Your task to perform on an android device: Open the calendar app, open the side menu, and click the "Day" option Image 0: 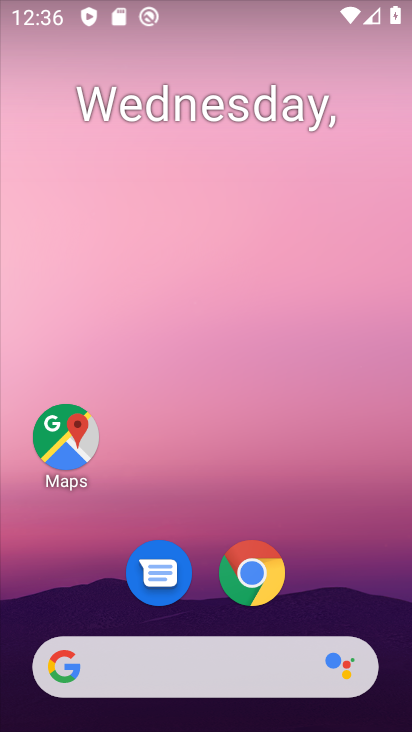
Step 0: drag from (258, 591) to (303, 17)
Your task to perform on an android device: Open the calendar app, open the side menu, and click the "Day" option Image 1: 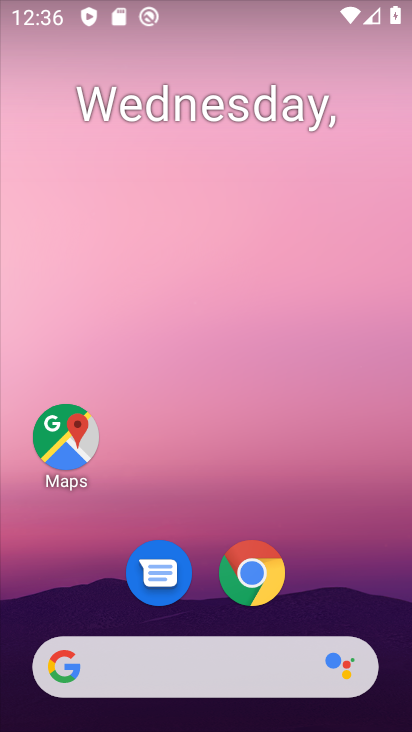
Step 1: drag from (325, 594) to (267, 8)
Your task to perform on an android device: Open the calendar app, open the side menu, and click the "Day" option Image 2: 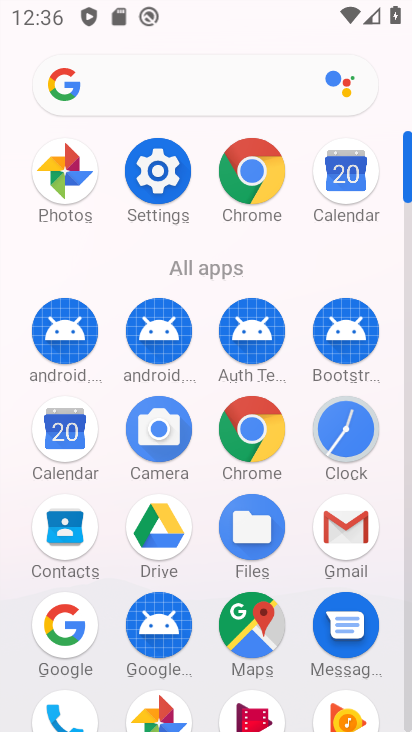
Step 2: click (70, 439)
Your task to perform on an android device: Open the calendar app, open the side menu, and click the "Day" option Image 3: 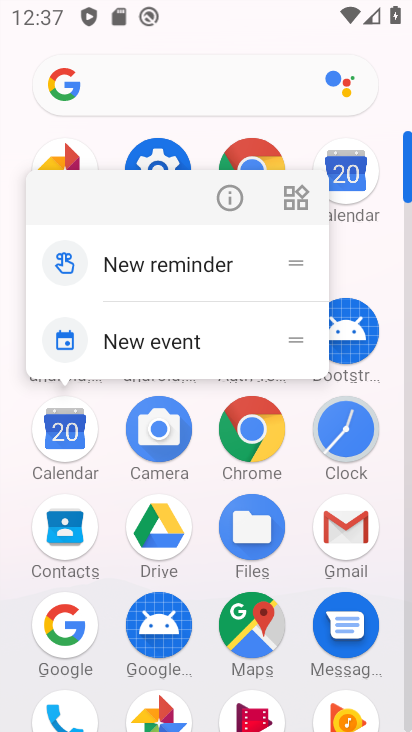
Step 3: click (44, 434)
Your task to perform on an android device: Open the calendar app, open the side menu, and click the "Day" option Image 4: 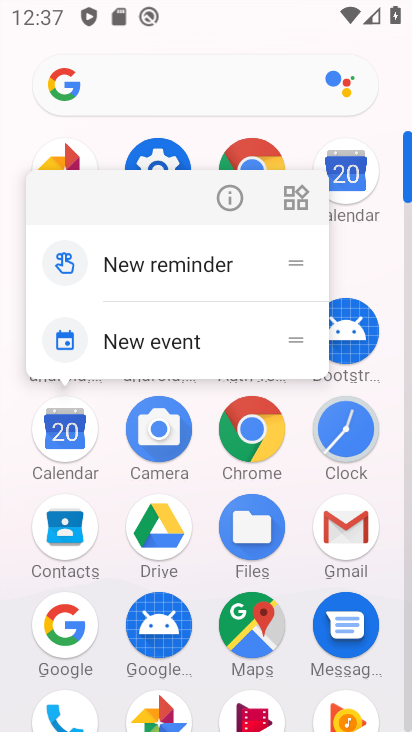
Step 4: click (66, 429)
Your task to perform on an android device: Open the calendar app, open the side menu, and click the "Day" option Image 5: 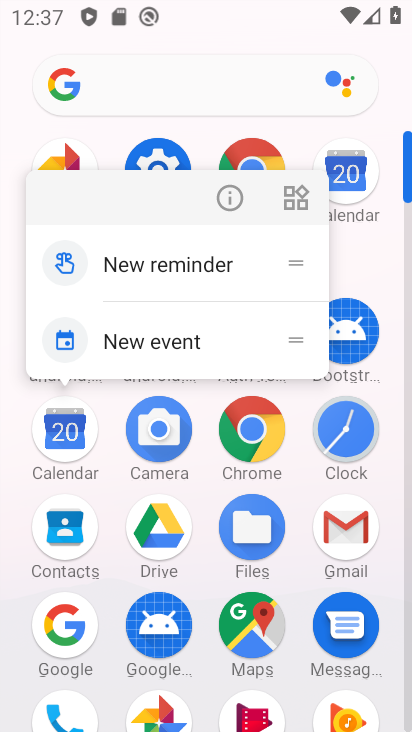
Step 5: click (66, 429)
Your task to perform on an android device: Open the calendar app, open the side menu, and click the "Day" option Image 6: 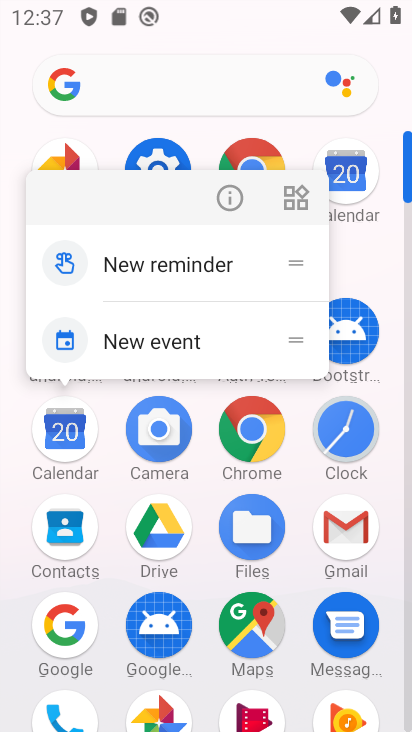
Step 6: click (66, 429)
Your task to perform on an android device: Open the calendar app, open the side menu, and click the "Day" option Image 7: 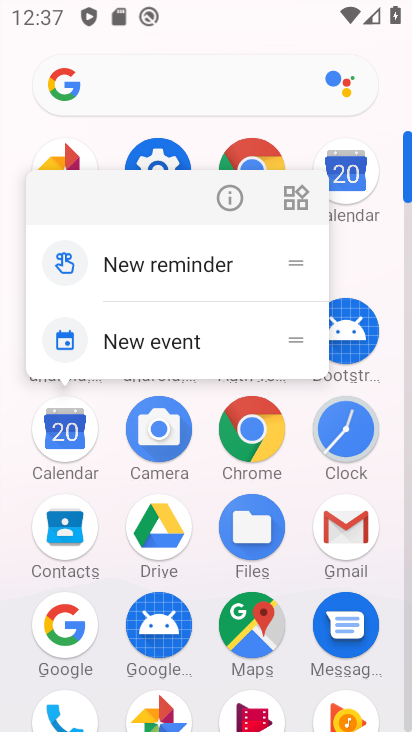
Step 7: click (66, 429)
Your task to perform on an android device: Open the calendar app, open the side menu, and click the "Day" option Image 8: 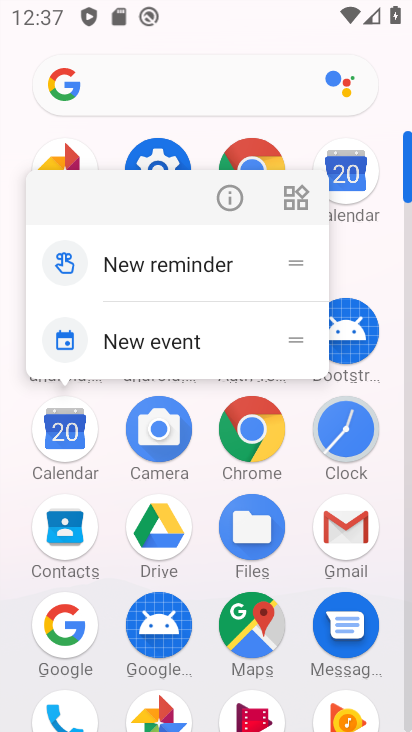
Step 8: click (50, 448)
Your task to perform on an android device: Open the calendar app, open the side menu, and click the "Day" option Image 9: 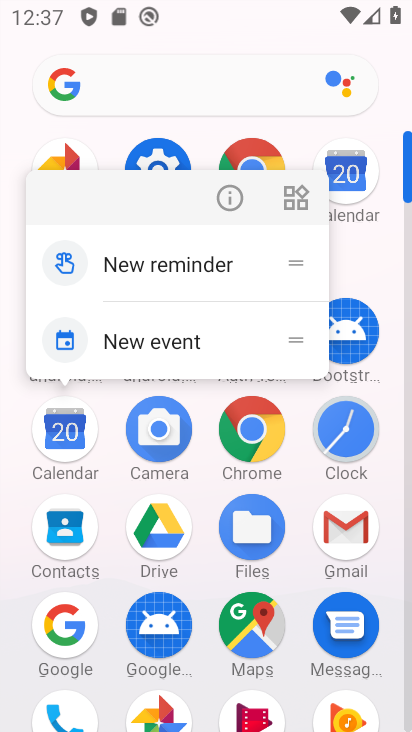
Step 9: click (50, 448)
Your task to perform on an android device: Open the calendar app, open the side menu, and click the "Day" option Image 10: 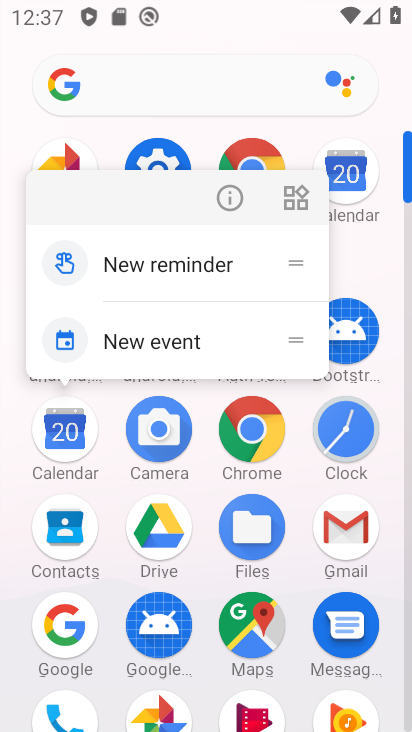
Step 10: click (56, 445)
Your task to perform on an android device: Open the calendar app, open the side menu, and click the "Day" option Image 11: 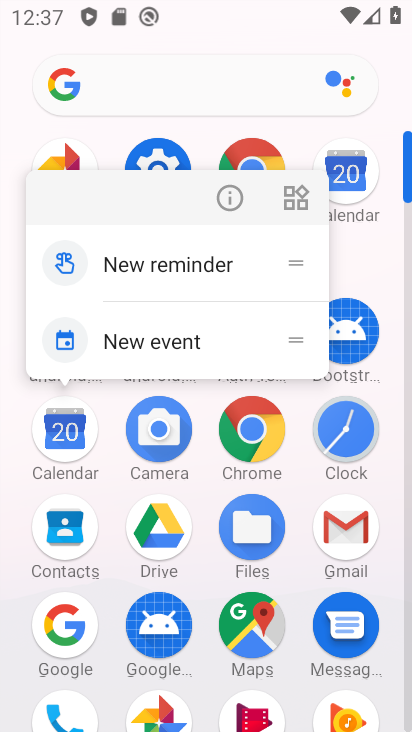
Step 11: click (56, 445)
Your task to perform on an android device: Open the calendar app, open the side menu, and click the "Day" option Image 12: 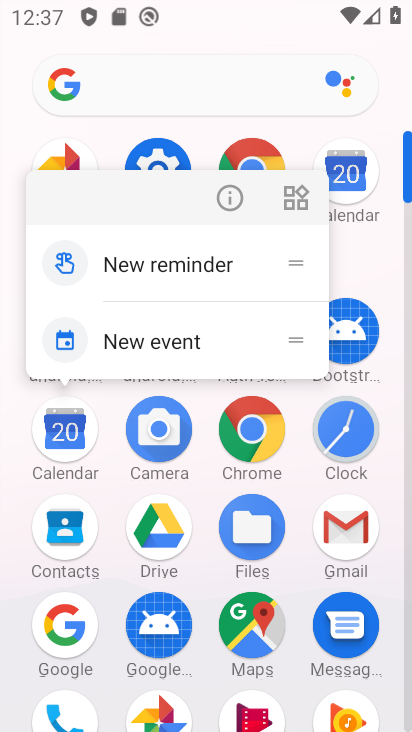
Step 12: click (60, 445)
Your task to perform on an android device: Open the calendar app, open the side menu, and click the "Day" option Image 13: 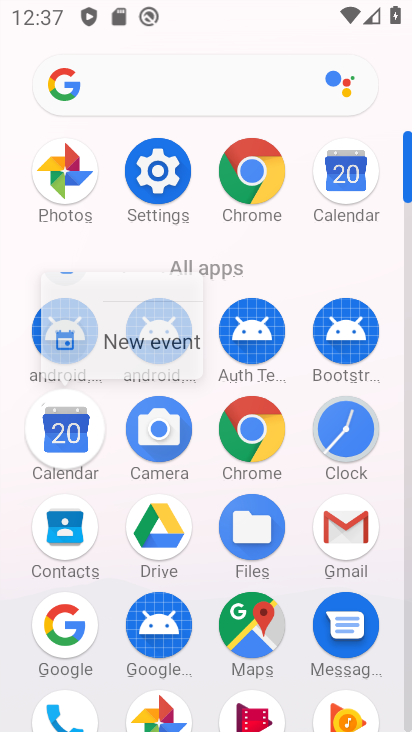
Step 13: click (60, 445)
Your task to perform on an android device: Open the calendar app, open the side menu, and click the "Day" option Image 14: 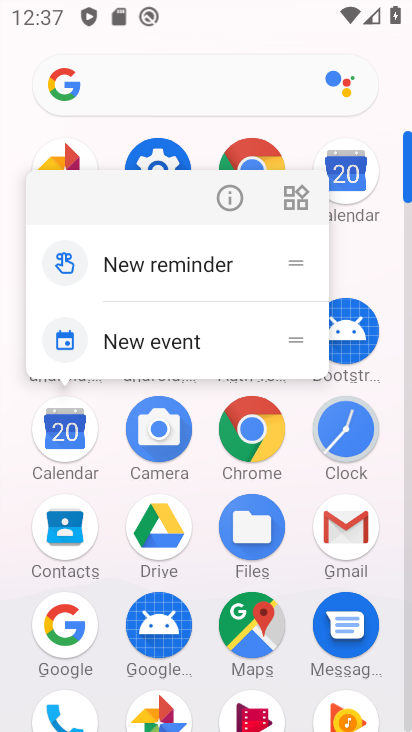
Step 14: click (60, 438)
Your task to perform on an android device: Open the calendar app, open the side menu, and click the "Day" option Image 15: 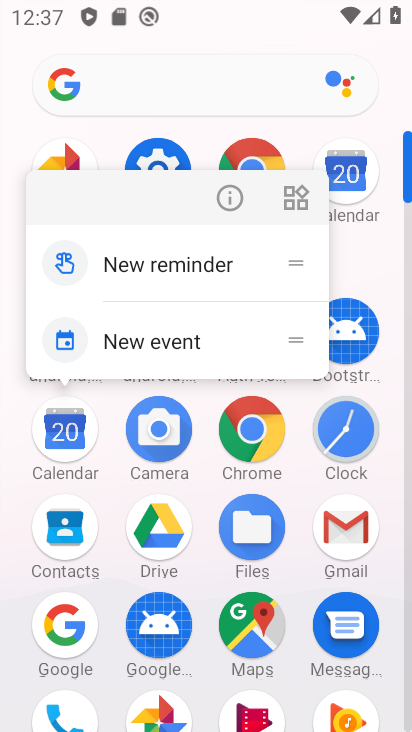
Step 15: click (60, 438)
Your task to perform on an android device: Open the calendar app, open the side menu, and click the "Day" option Image 16: 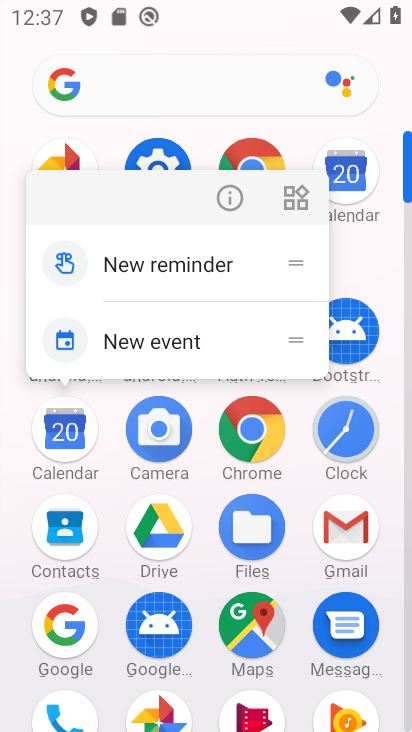
Step 16: click (60, 438)
Your task to perform on an android device: Open the calendar app, open the side menu, and click the "Day" option Image 17: 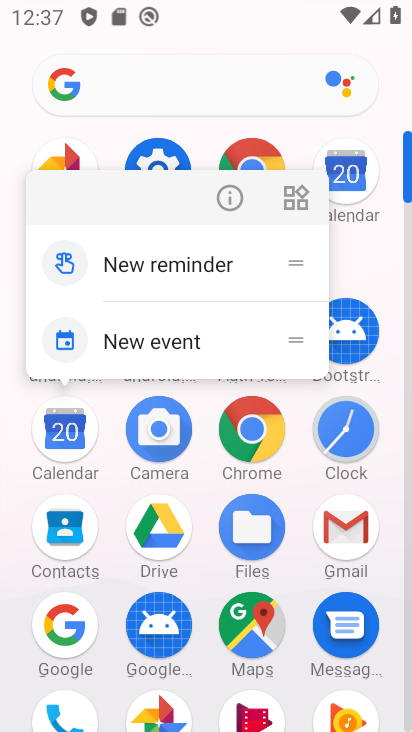
Step 17: click (60, 438)
Your task to perform on an android device: Open the calendar app, open the side menu, and click the "Day" option Image 18: 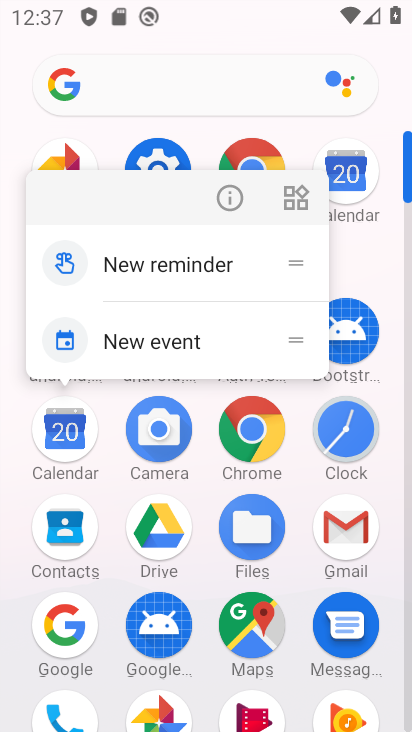
Step 18: click (60, 438)
Your task to perform on an android device: Open the calendar app, open the side menu, and click the "Day" option Image 19: 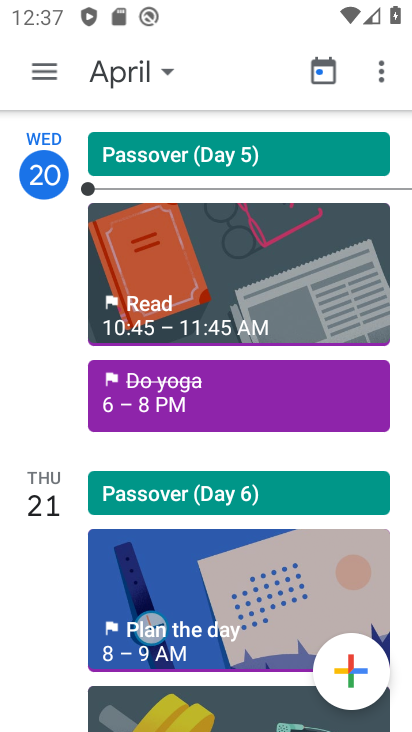
Step 19: click (48, 73)
Your task to perform on an android device: Open the calendar app, open the side menu, and click the "Day" option Image 20: 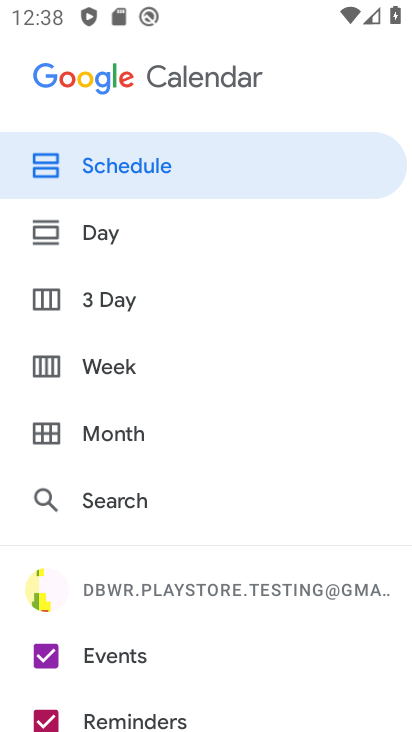
Step 20: click (132, 233)
Your task to perform on an android device: Open the calendar app, open the side menu, and click the "Day" option Image 21: 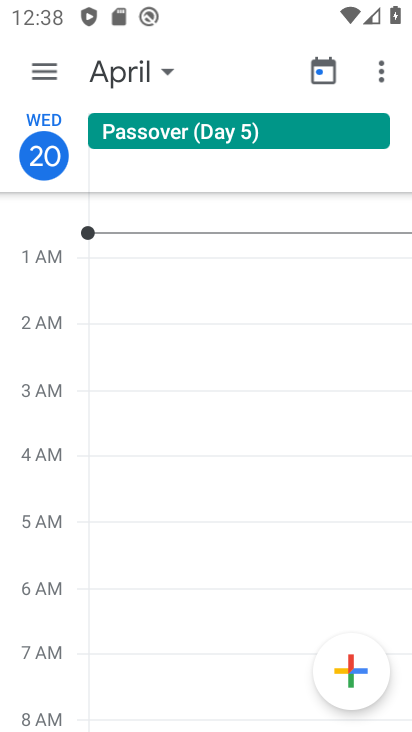
Step 21: task complete